Your task to perform on an android device: turn off airplane mode Image 0: 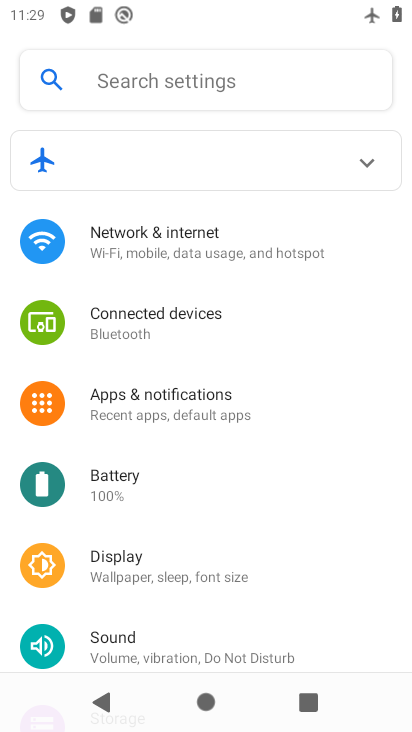
Step 0: click (181, 252)
Your task to perform on an android device: turn off airplane mode Image 1: 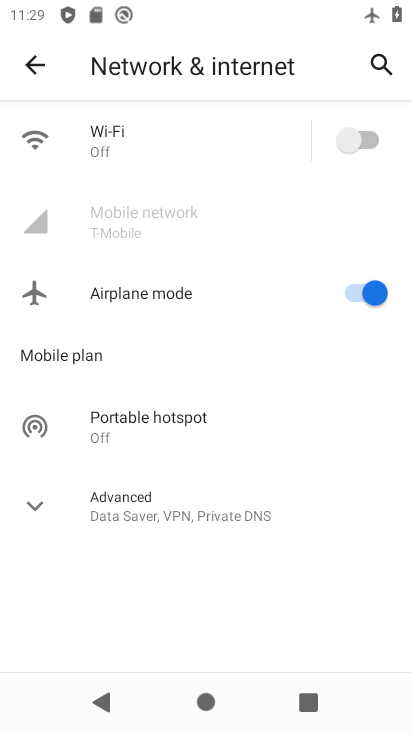
Step 1: click (363, 281)
Your task to perform on an android device: turn off airplane mode Image 2: 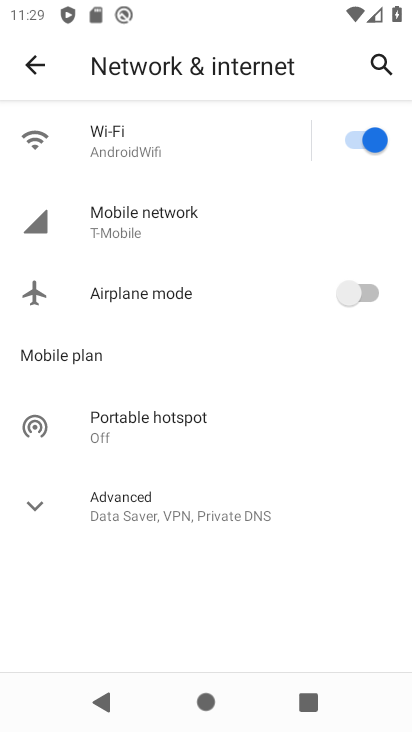
Step 2: task complete